Your task to perform on an android device: star an email in the gmail app Image 0: 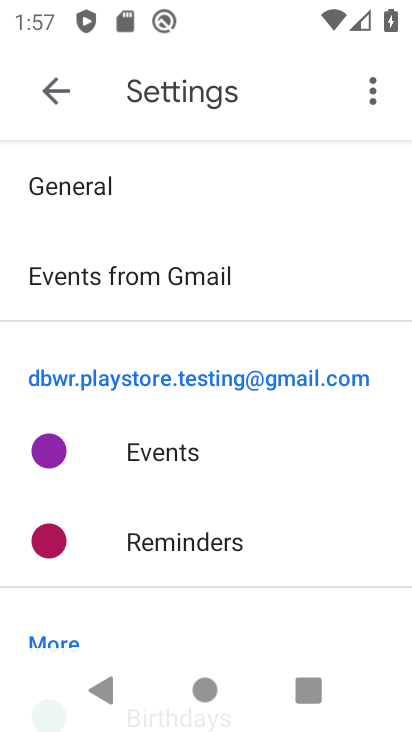
Step 0: press home button
Your task to perform on an android device: star an email in the gmail app Image 1: 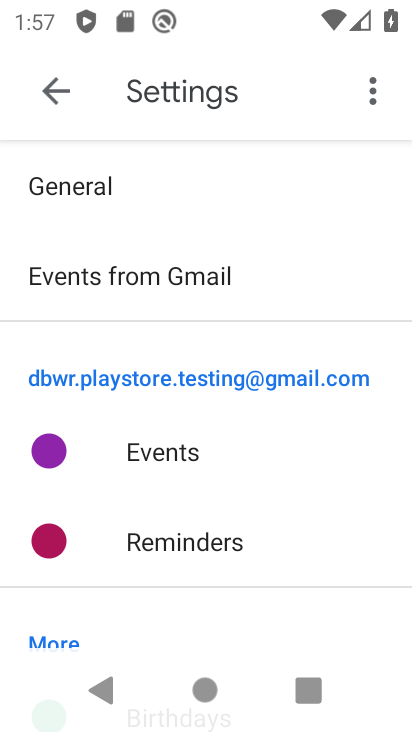
Step 1: press home button
Your task to perform on an android device: star an email in the gmail app Image 2: 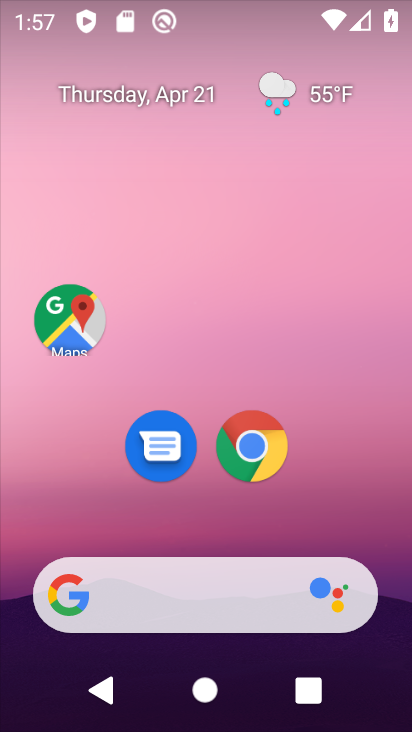
Step 2: drag from (211, 715) to (185, 196)
Your task to perform on an android device: star an email in the gmail app Image 3: 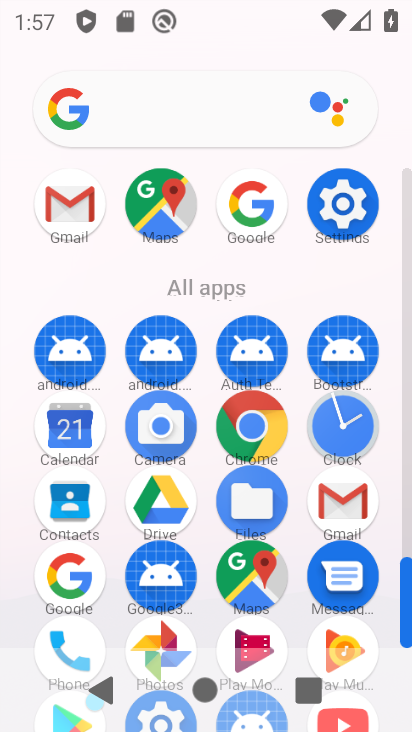
Step 3: click (73, 202)
Your task to perform on an android device: star an email in the gmail app Image 4: 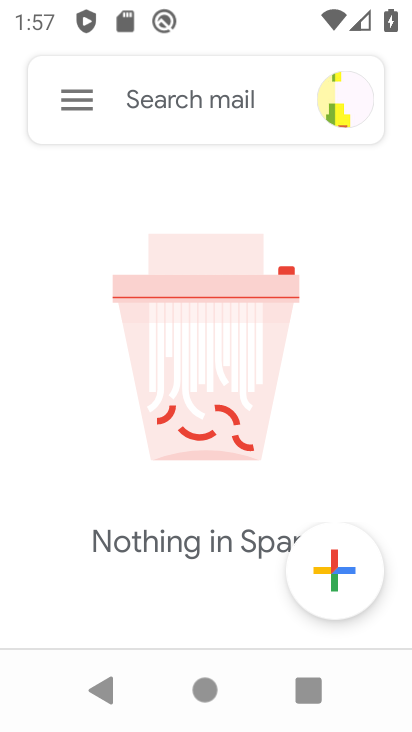
Step 4: click (70, 99)
Your task to perform on an android device: star an email in the gmail app Image 5: 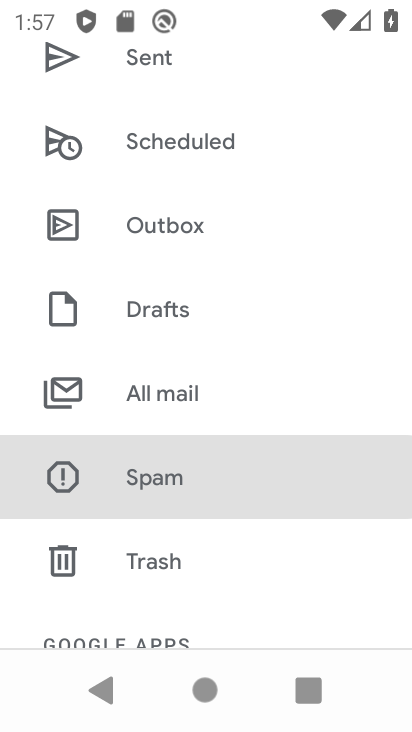
Step 5: drag from (184, 162) to (193, 590)
Your task to perform on an android device: star an email in the gmail app Image 6: 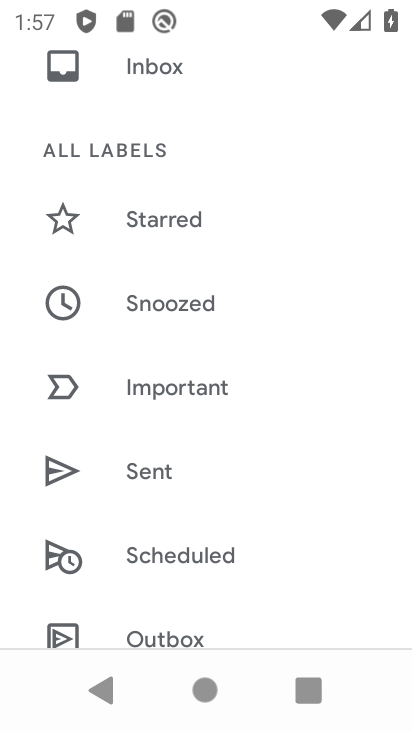
Step 6: drag from (202, 139) to (208, 490)
Your task to perform on an android device: star an email in the gmail app Image 7: 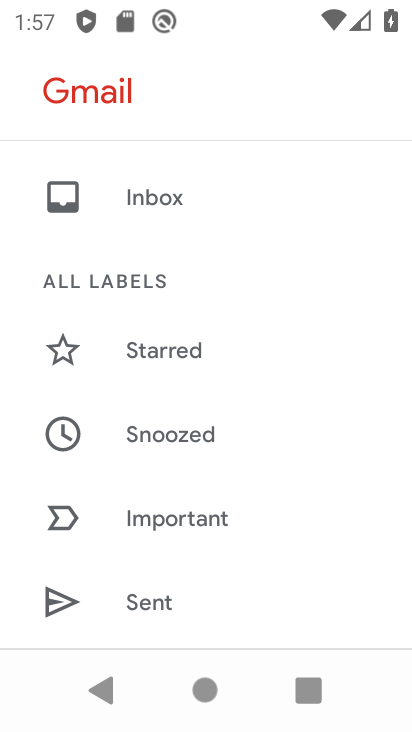
Step 7: click (147, 191)
Your task to perform on an android device: star an email in the gmail app Image 8: 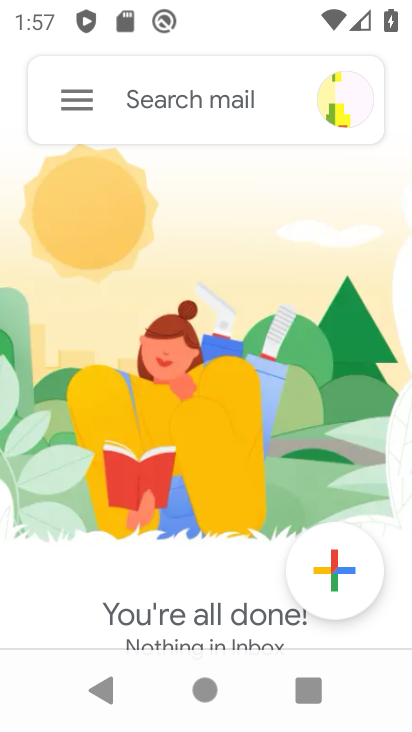
Step 8: task complete